Your task to perform on an android device: toggle notifications settings in the gmail app Image 0: 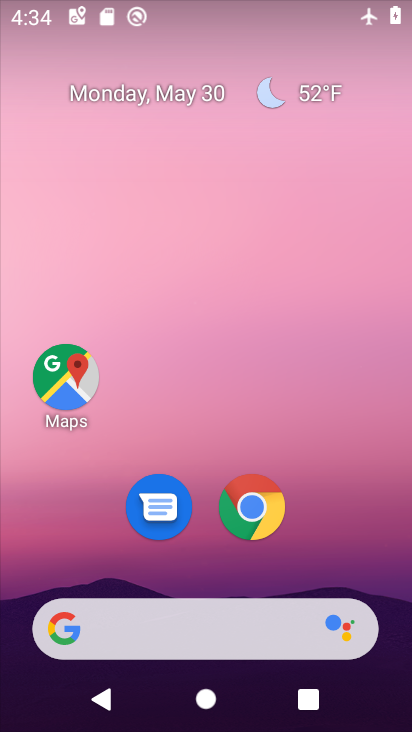
Step 0: click (246, 515)
Your task to perform on an android device: toggle notifications settings in the gmail app Image 1: 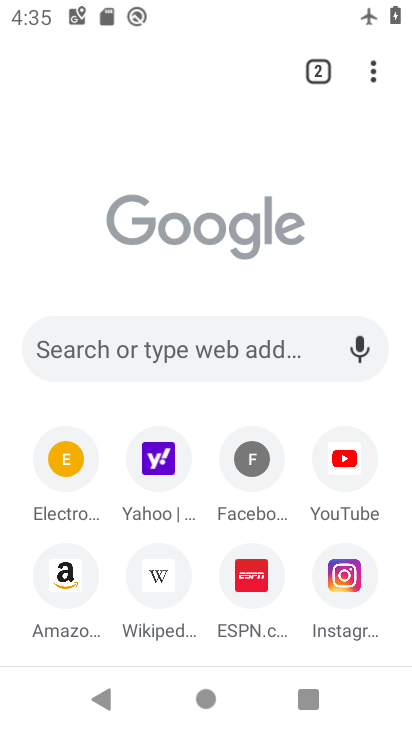
Step 1: click (303, 312)
Your task to perform on an android device: toggle notifications settings in the gmail app Image 2: 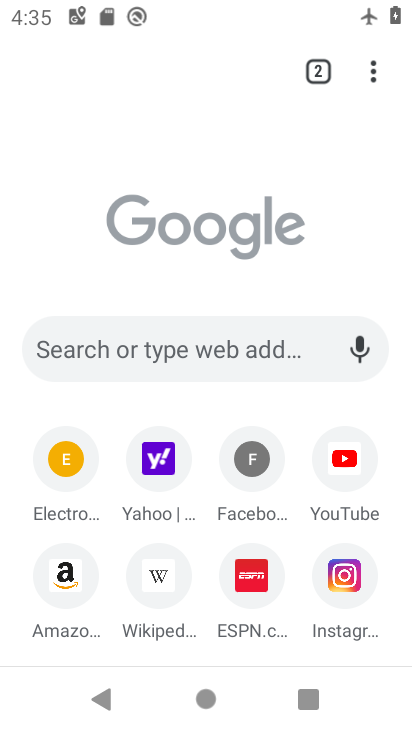
Step 2: press home button
Your task to perform on an android device: toggle notifications settings in the gmail app Image 3: 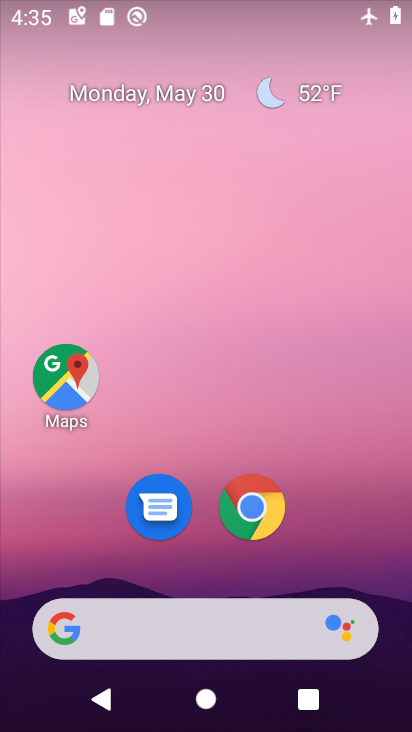
Step 3: drag from (367, 551) to (408, 482)
Your task to perform on an android device: toggle notifications settings in the gmail app Image 4: 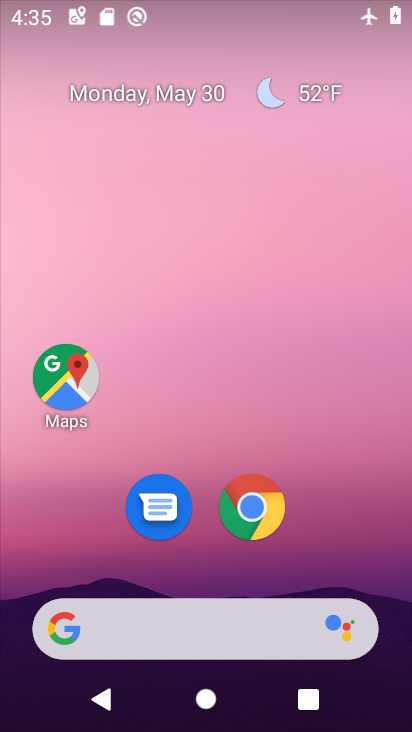
Step 4: drag from (338, 523) to (397, 447)
Your task to perform on an android device: toggle notifications settings in the gmail app Image 5: 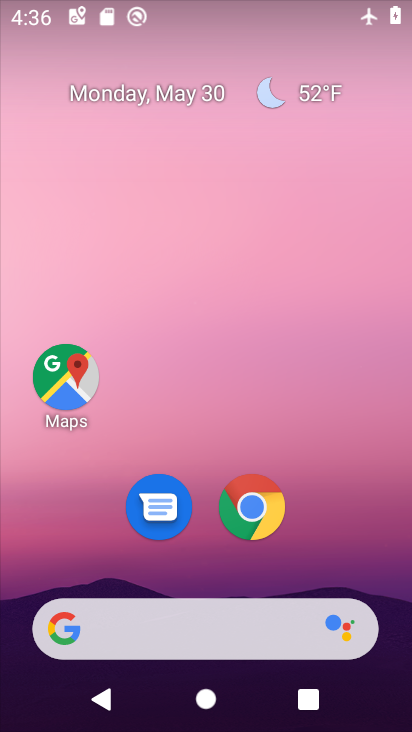
Step 5: drag from (304, 558) to (332, 45)
Your task to perform on an android device: toggle notifications settings in the gmail app Image 6: 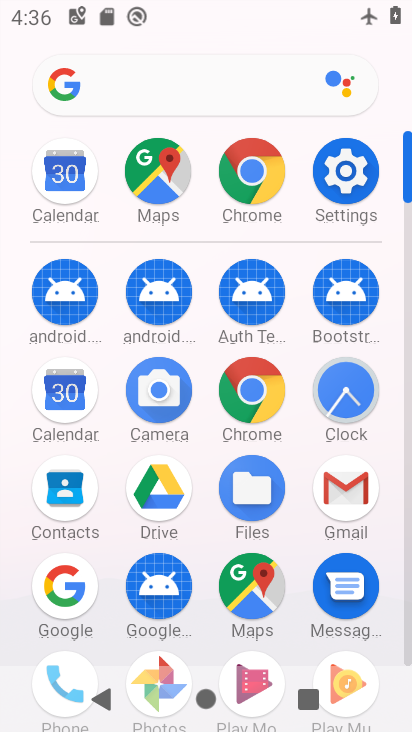
Step 6: click (349, 487)
Your task to perform on an android device: toggle notifications settings in the gmail app Image 7: 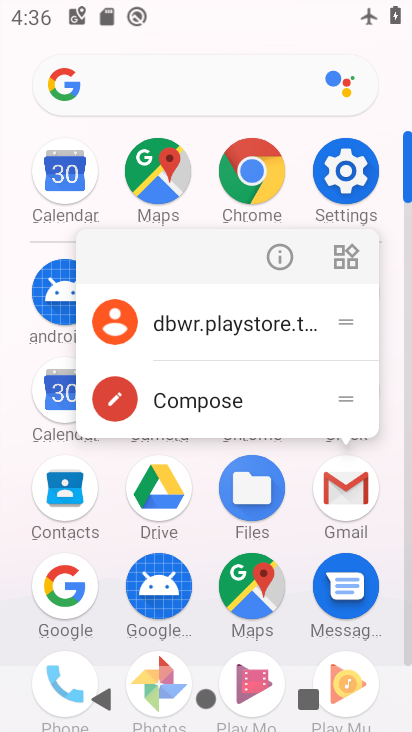
Step 7: click (290, 253)
Your task to perform on an android device: toggle notifications settings in the gmail app Image 8: 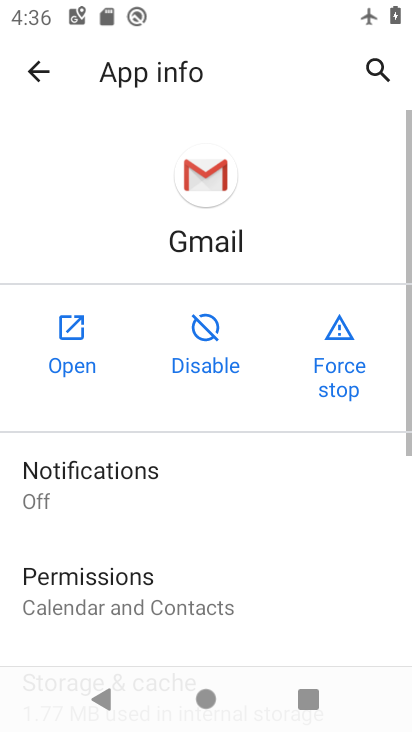
Step 8: click (244, 469)
Your task to perform on an android device: toggle notifications settings in the gmail app Image 9: 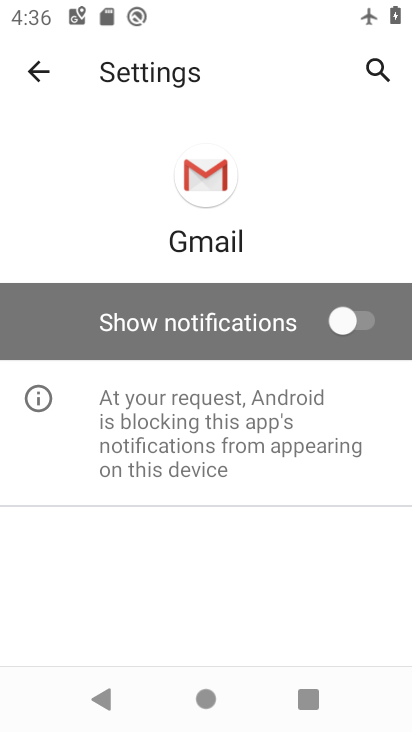
Step 9: click (356, 312)
Your task to perform on an android device: toggle notifications settings in the gmail app Image 10: 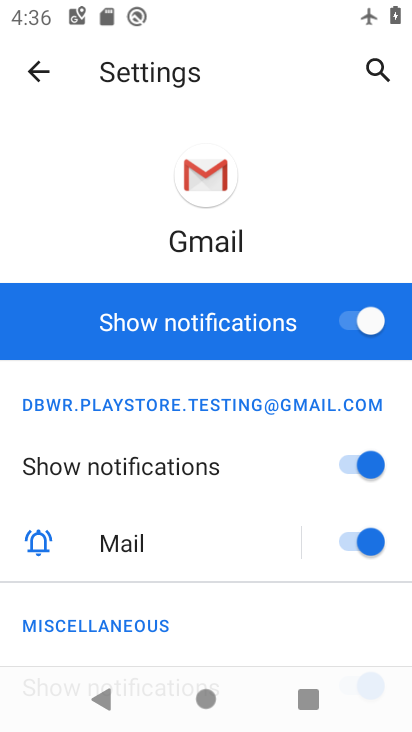
Step 10: task complete